Your task to perform on an android device: Go to notification settings Image 0: 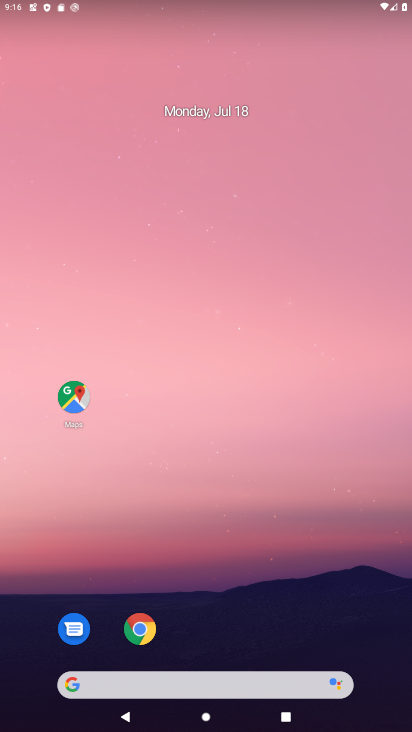
Step 0: drag from (318, 611) to (285, 94)
Your task to perform on an android device: Go to notification settings Image 1: 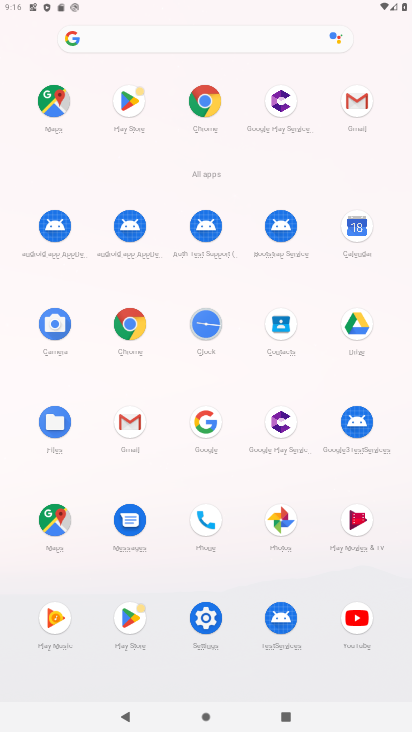
Step 1: click (216, 618)
Your task to perform on an android device: Go to notification settings Image 2: 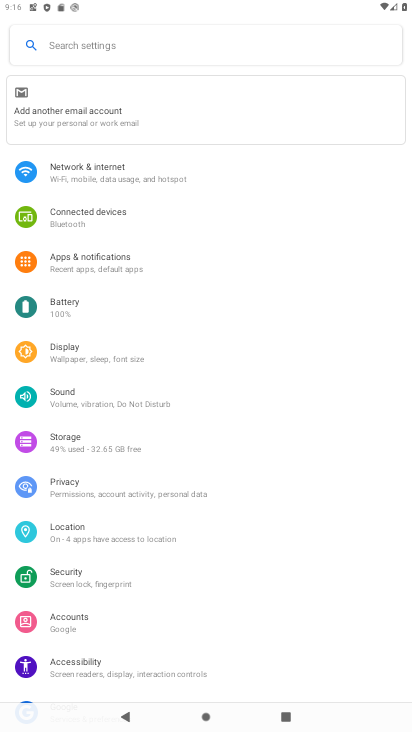
Step 2: click (80, 272)
Your task to perform on an android device: Go to notification settings Image 3: 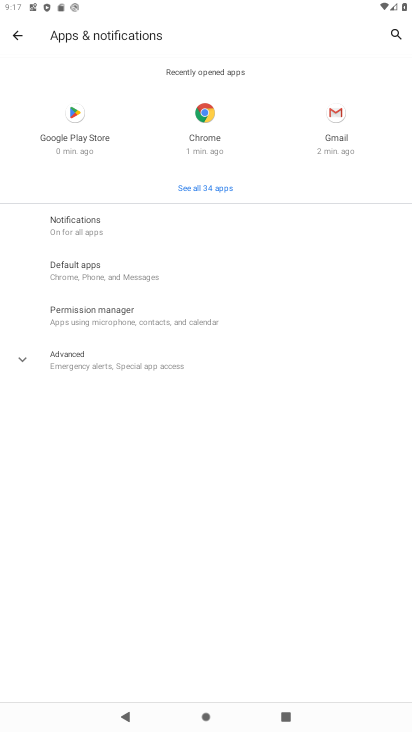
Step 3: click (90, 236)
Your task to perform on an android device: Go to notification settings Image 4: 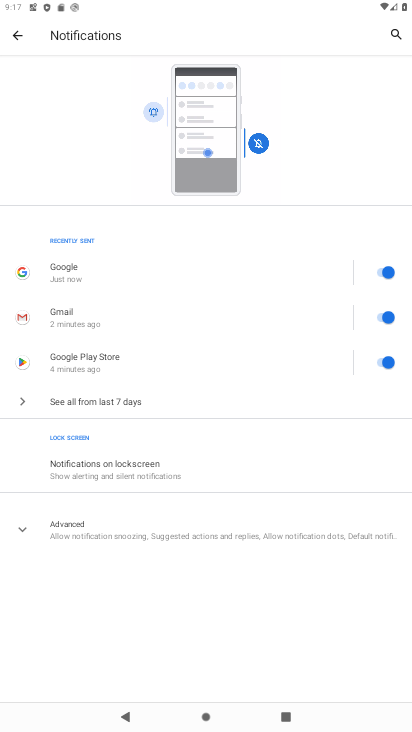
Step 4: task complete